Your task to perform on an android device: Search for a new 65" TV at Best Buy Image 0: 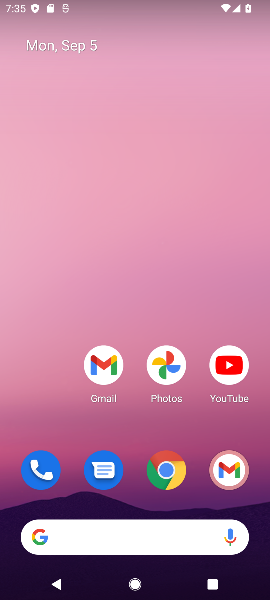
Step 0: click (104, 538)
Your task to perform on an android device: Search for a new 65" TV at Best Buy Image 1: 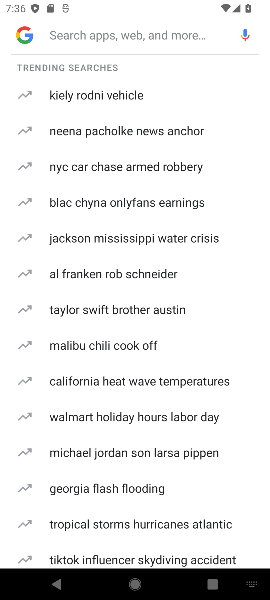
Step 1: type "best buy"
Your task to perform on an android device: Search for a new 65" TV at Best Buy Image 2: 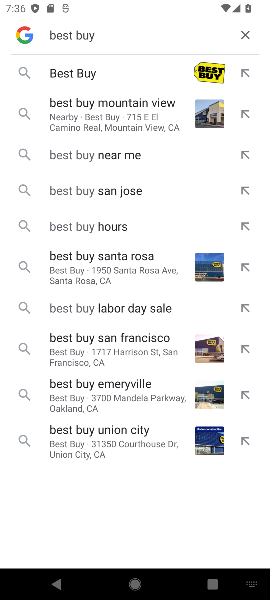
Step 2: click (109, 68)
Your task to perform on an android device: Search for a new 65" TV at Best Buy Image 3: 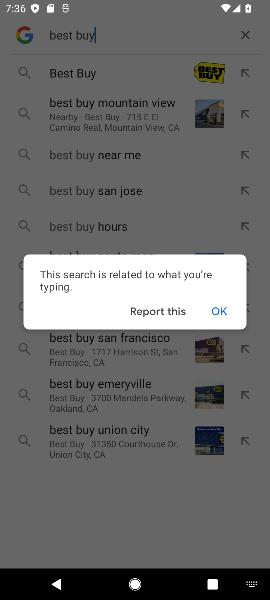
Step 3: click (220, 312)
Your task to perform on an android device: Search for a new 65" TV at Best Buy Image 4: 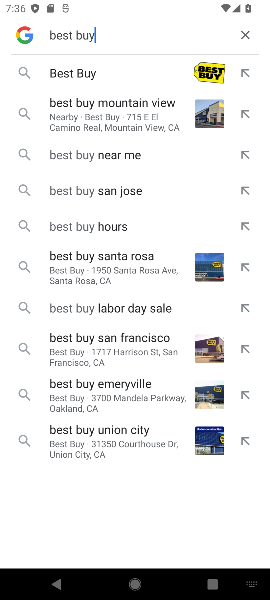
Step 4: click (95, 72)
Your task to perform on an android device: Search for a new 65" TV at Best Buy Image 5: 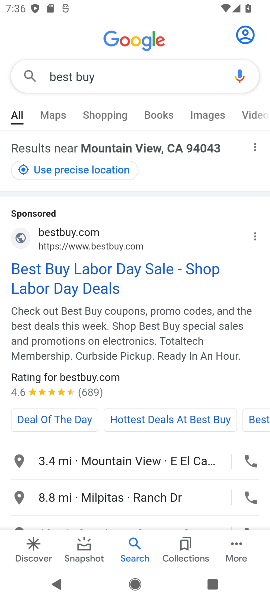
Step 5: click (56, 287)
Your task to perform on an android device: Search for a new 65" TV at Best Buy Image 6: 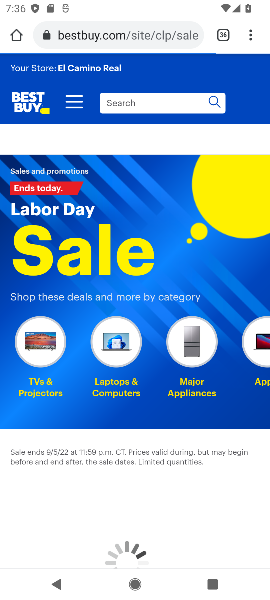
Step 6: click (131, 97)
Your task to perform on an android device: Search for a new 65" TV at Best Buy Image 7: 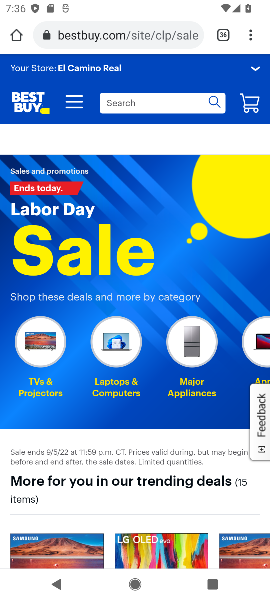
Step 7: type "new 65 tv"
Your task to perform on an android device: Search for a new 65" TV at Best Buy Image 8: 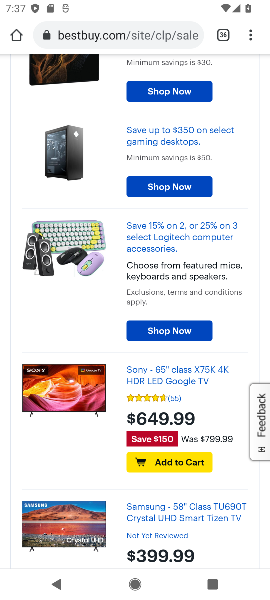
Step 8: drag from (256, 115) to (265, 441)
Your task to perform on an android device: Search for a new 65" TV at Best Buy Image 9: 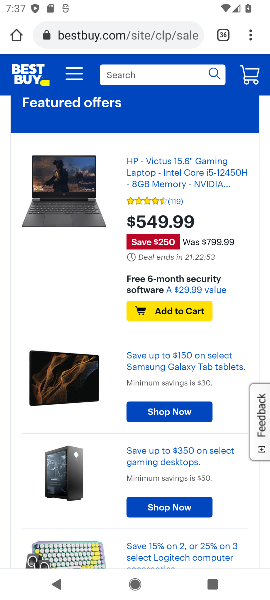
Step 9: click (146, 72)
Your task to perform on an android device: Search for a new 65" TV at Best Buy Image 10: 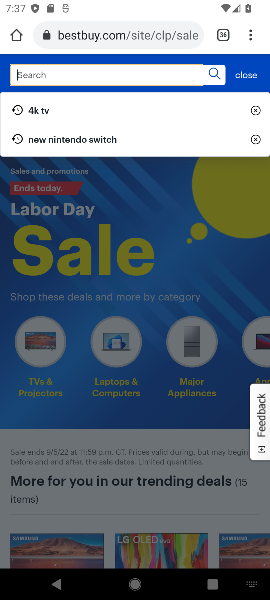
Step 10: type "new 65 tv"
Your task to perform on an android device: Search for a new 65" TV at Best Buy Image 11: 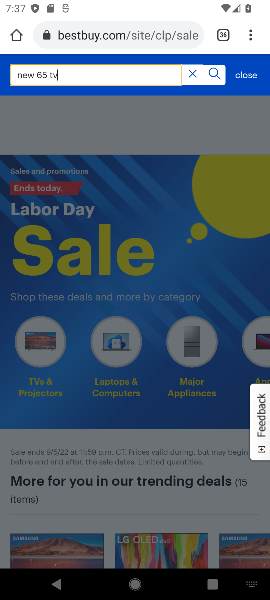
Step 11: click (214, 69)
Your task to perform on an android device: Search for a new 65" TV at Best Buy Image 12: 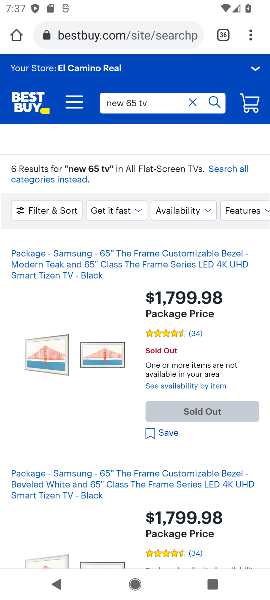
Step 12: task complete